Your task to perform on an android device: Add "logitech g910" to the cart on ebay.com, then select checkout. Image 0: 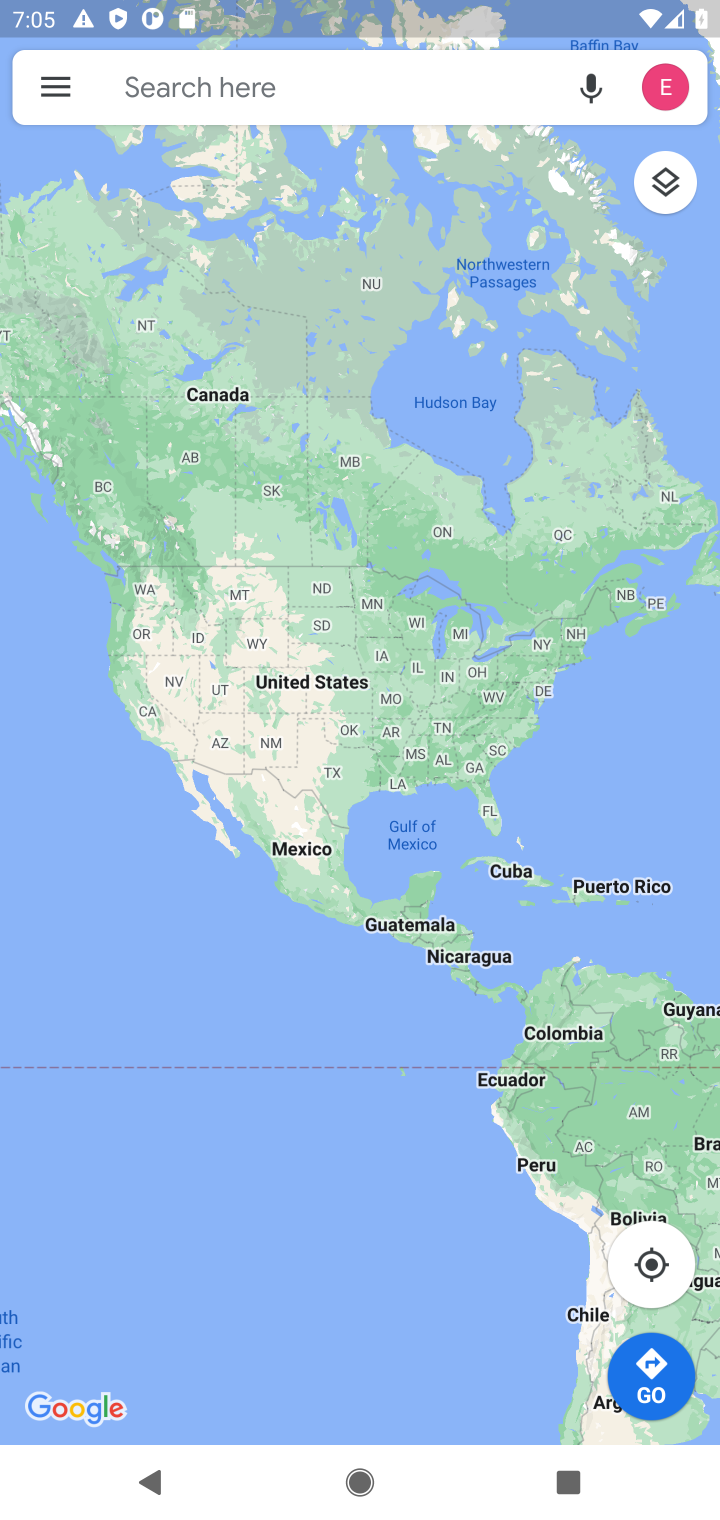
Step 0: press home button
Your task to perform on an android device: Add "logitech g910" to the cart on ebay.com, then select checkout. Image 1: 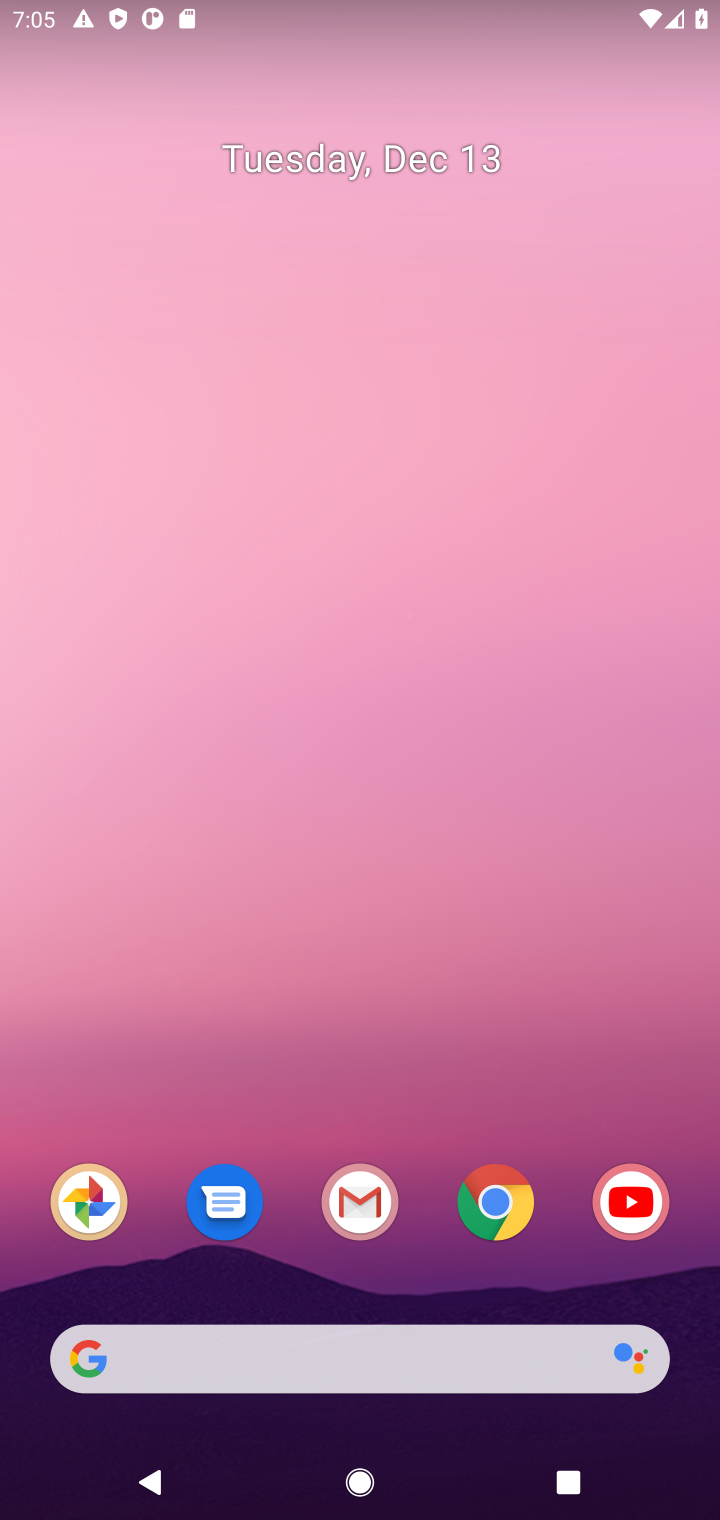
Step 1: click (493, 439)
Your task to perform on an android device: Add "logitech g910" to the cart on ebay.com, then select checkout. Image 2: 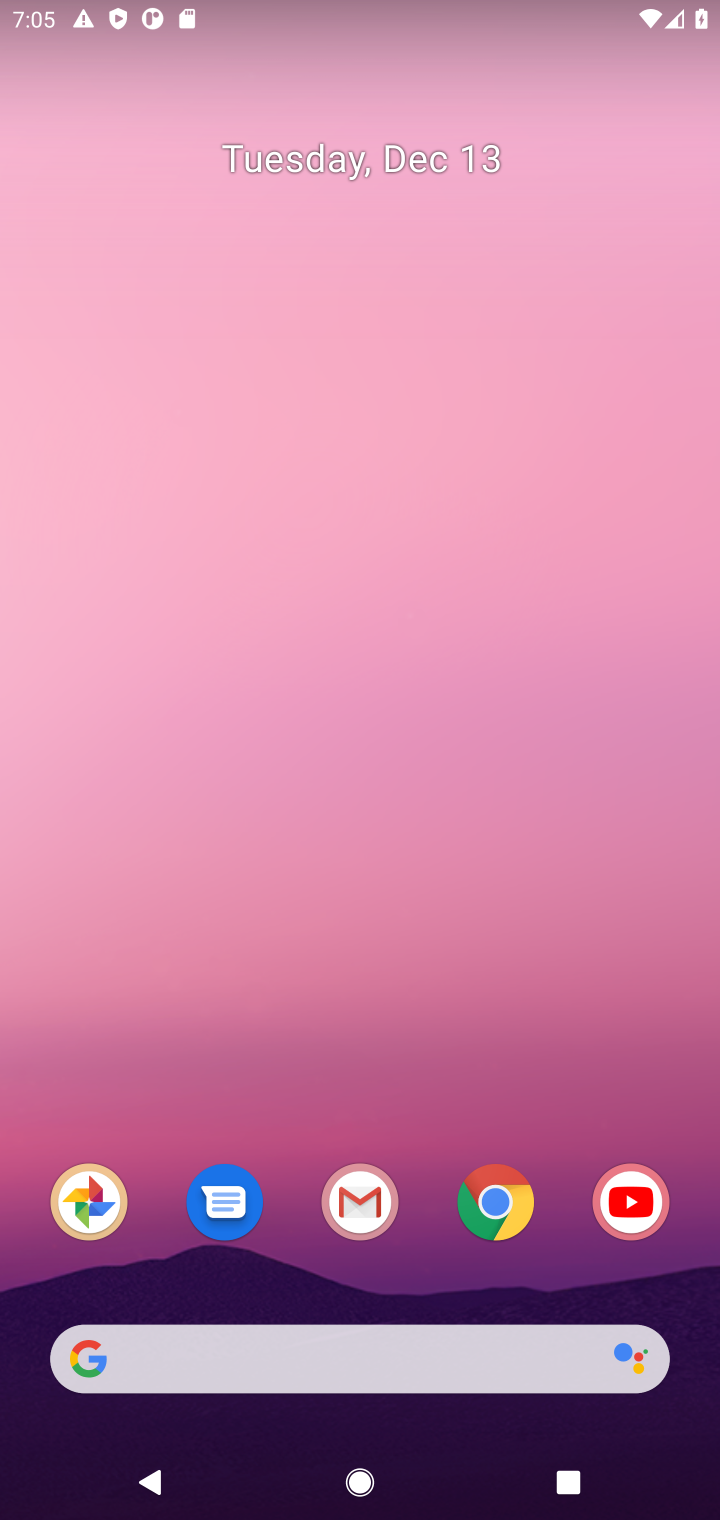
Step 2: click (503, 1221)
Your task to perform on an android device: Add "logitech g910" to the cart on ebay.com, then select checkout. Image 3: 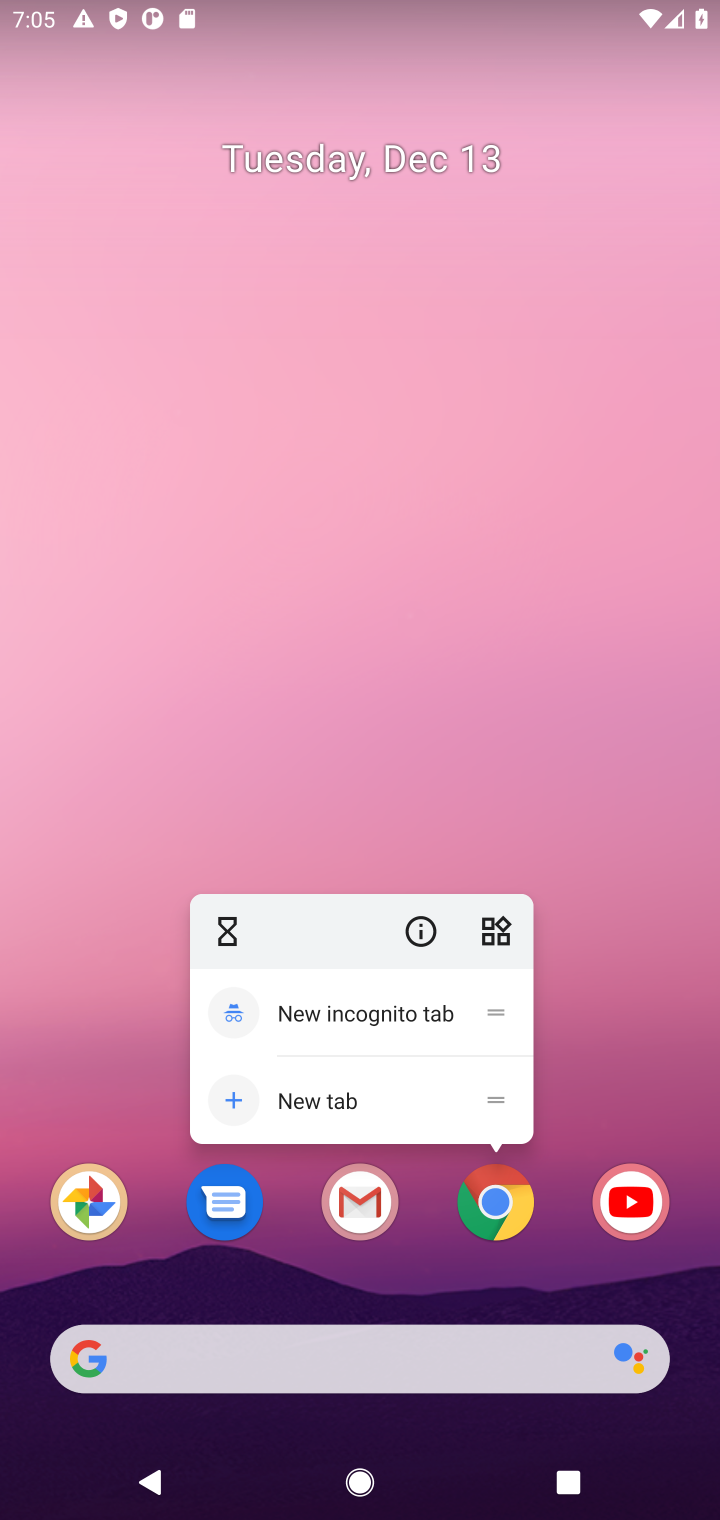
Step 3: click (503, 1221)
Your task to perform on an android device: Add "logitech g910" to the cart on ebay.com, then select checkout. Image 4: 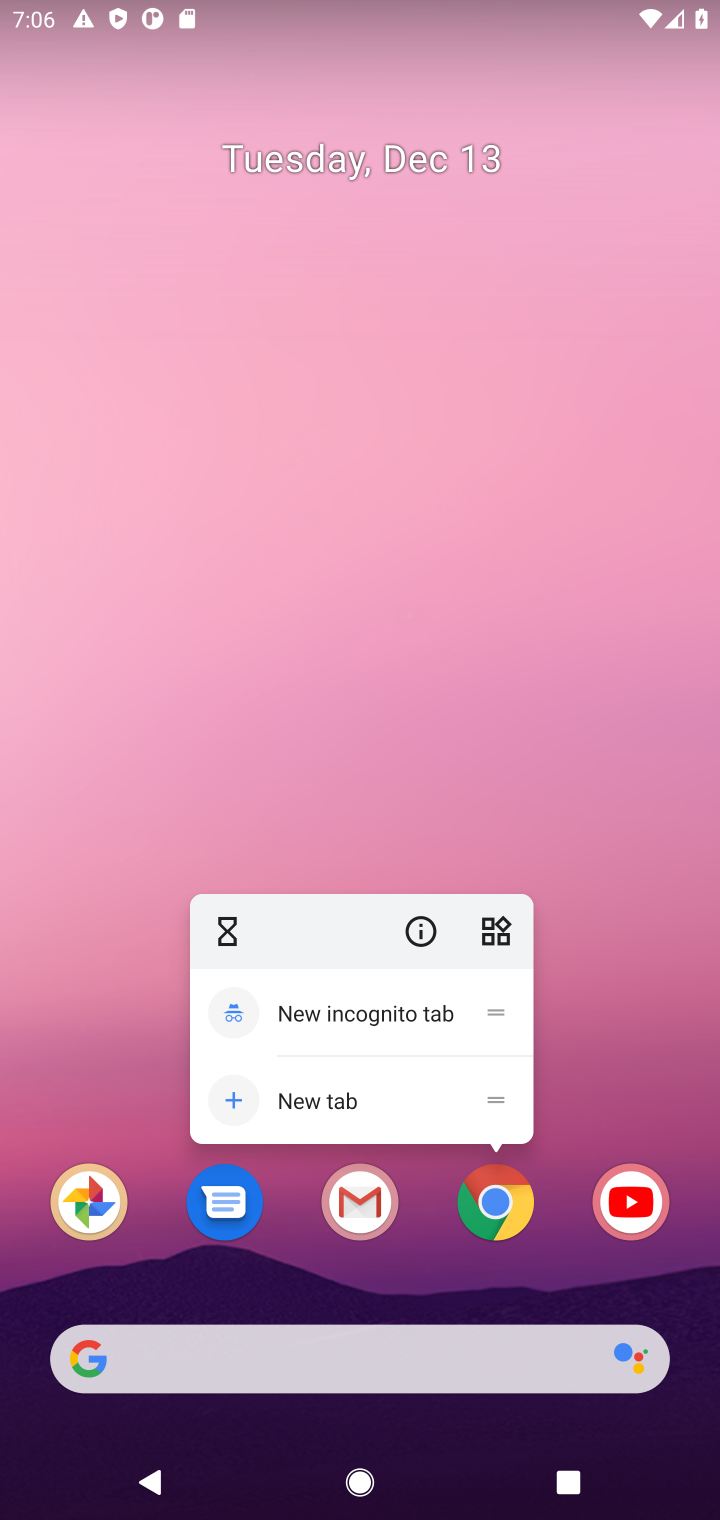
Step 4: click (493, 1212)
Your task to perform on an android device: Add "logitech g910" to the cart on ebay.com, then select checkout. Image 5: 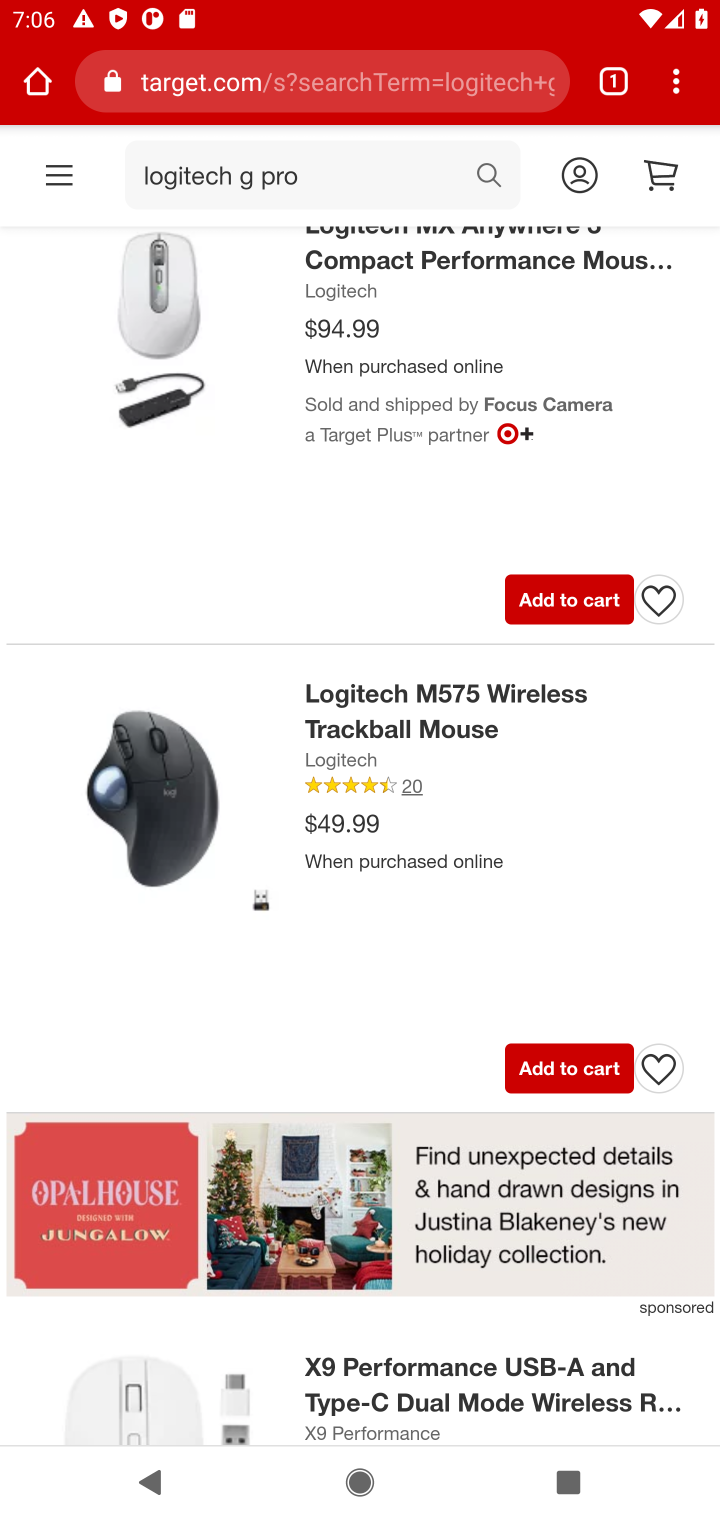
Step 5: click (281, 93)
Your task to perform on an android device: Add "logitech g910" to the cart on ebay.com, then select checkout. Image 6: 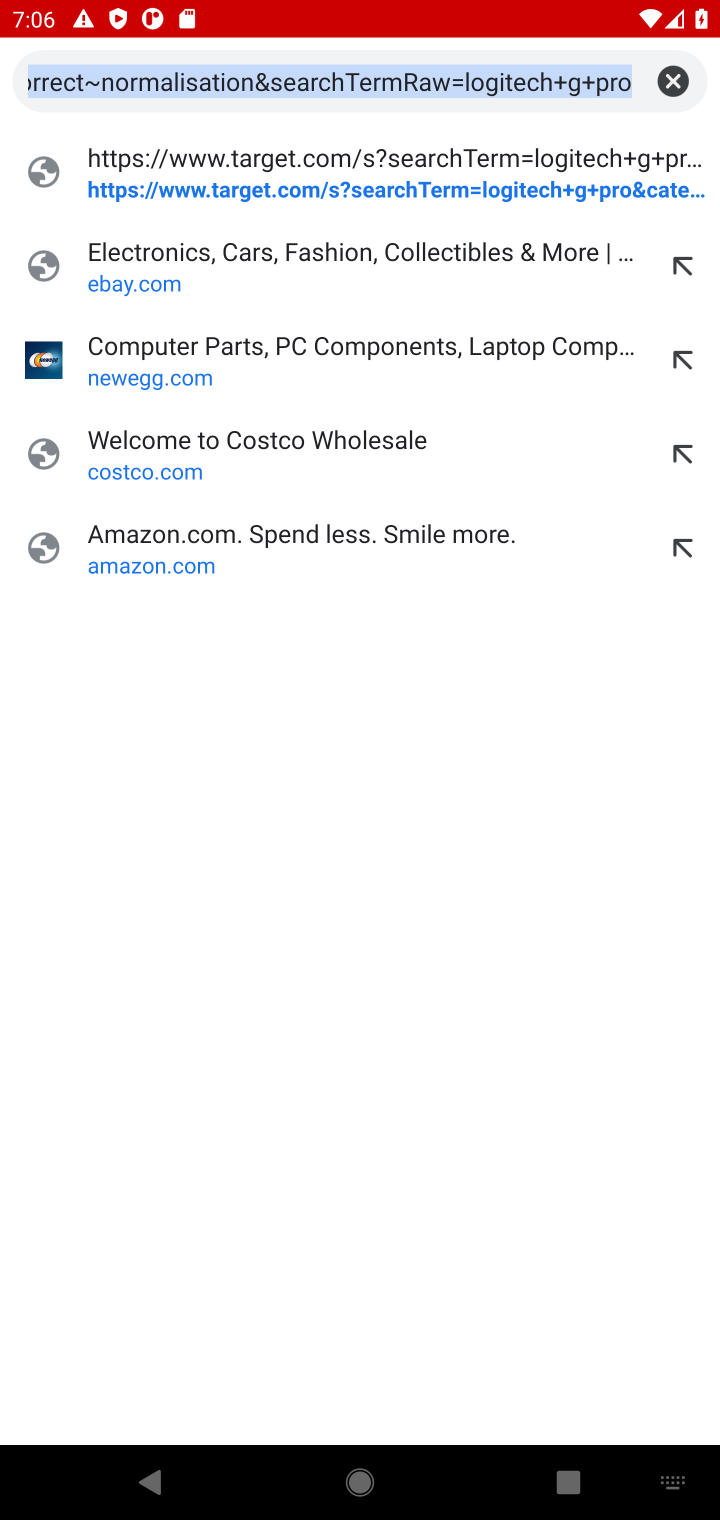
Step 6: click (166, 269)
Your task to perform on an android device: Add "logitech g910" to the cart on ebay.com, then select checkout. Image 7: 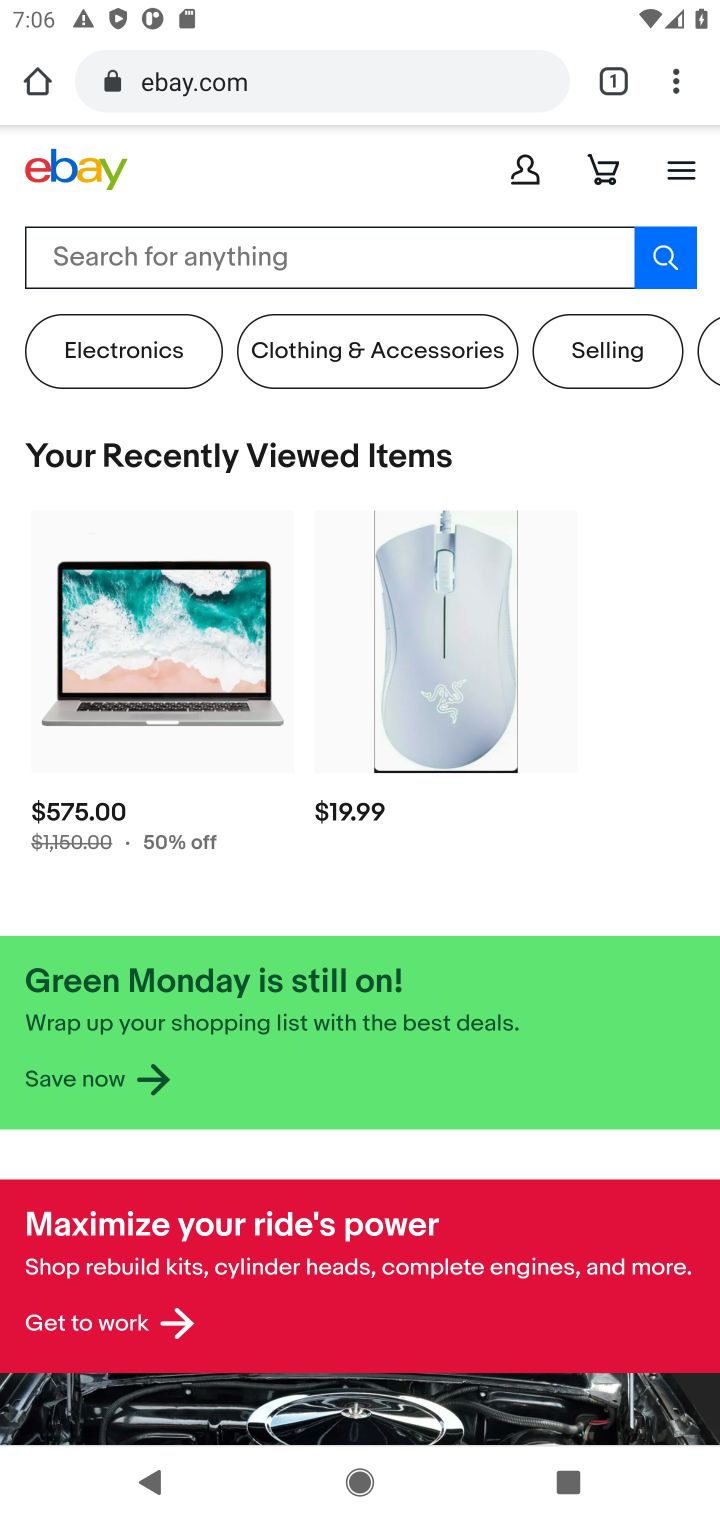
Step 7: click (112, 272)
Your task to perform on an android device: Add "logitech g910" to the cart on ebay.com, then select checkout. Image 8: 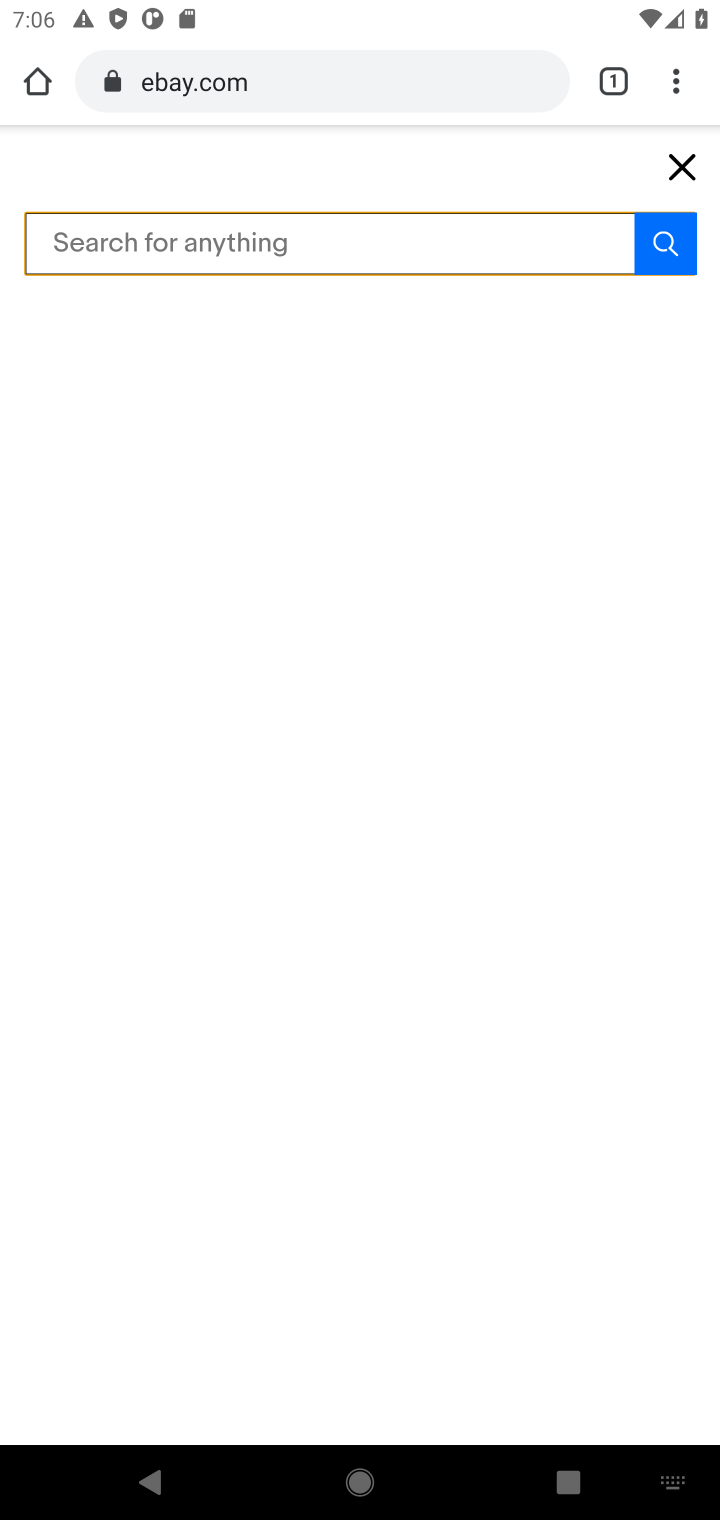
Step 8: type "logitech g910"
Your task to perform on an android device: Add "logitech g910" to the cart on ebay.com, then select checkout. Image 9: 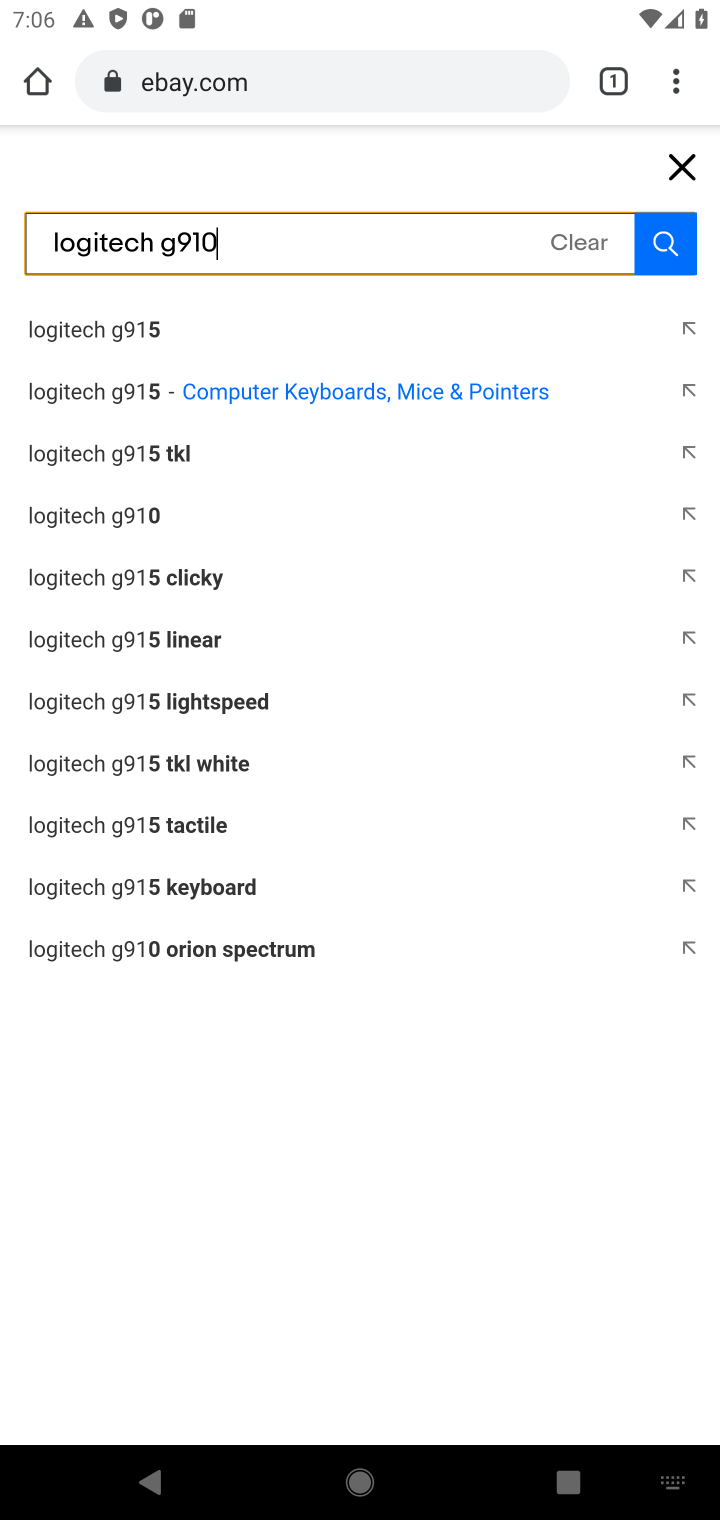
Step 9: click (110, 523)
Your task to perform on an android device: Add "logitech g910" to the cart on ebay.com, then select checkout. Image 10: 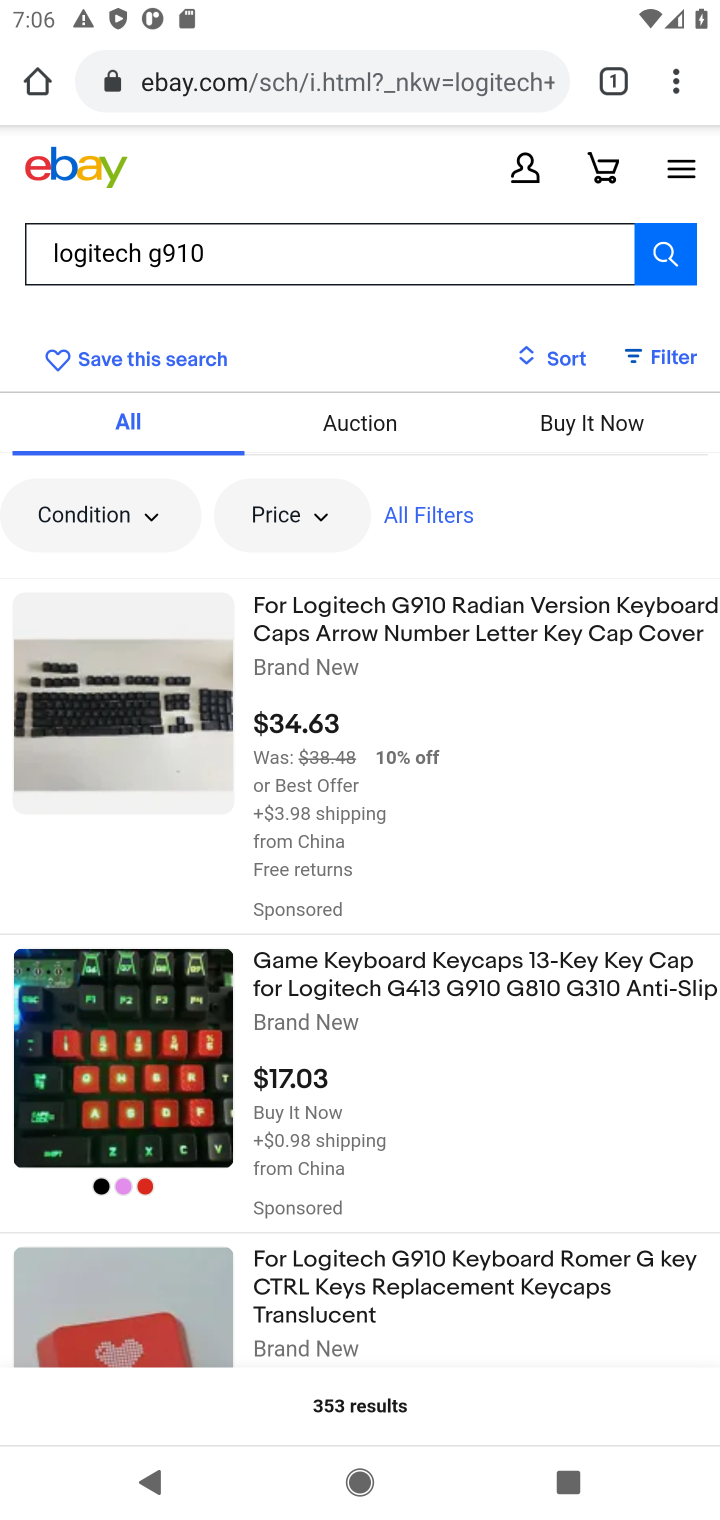
Step 10: click (466, 633)
Your task to perform on an android device: Add "logitech g910" to the cart on ebay.com, then select checkout. Image 11: 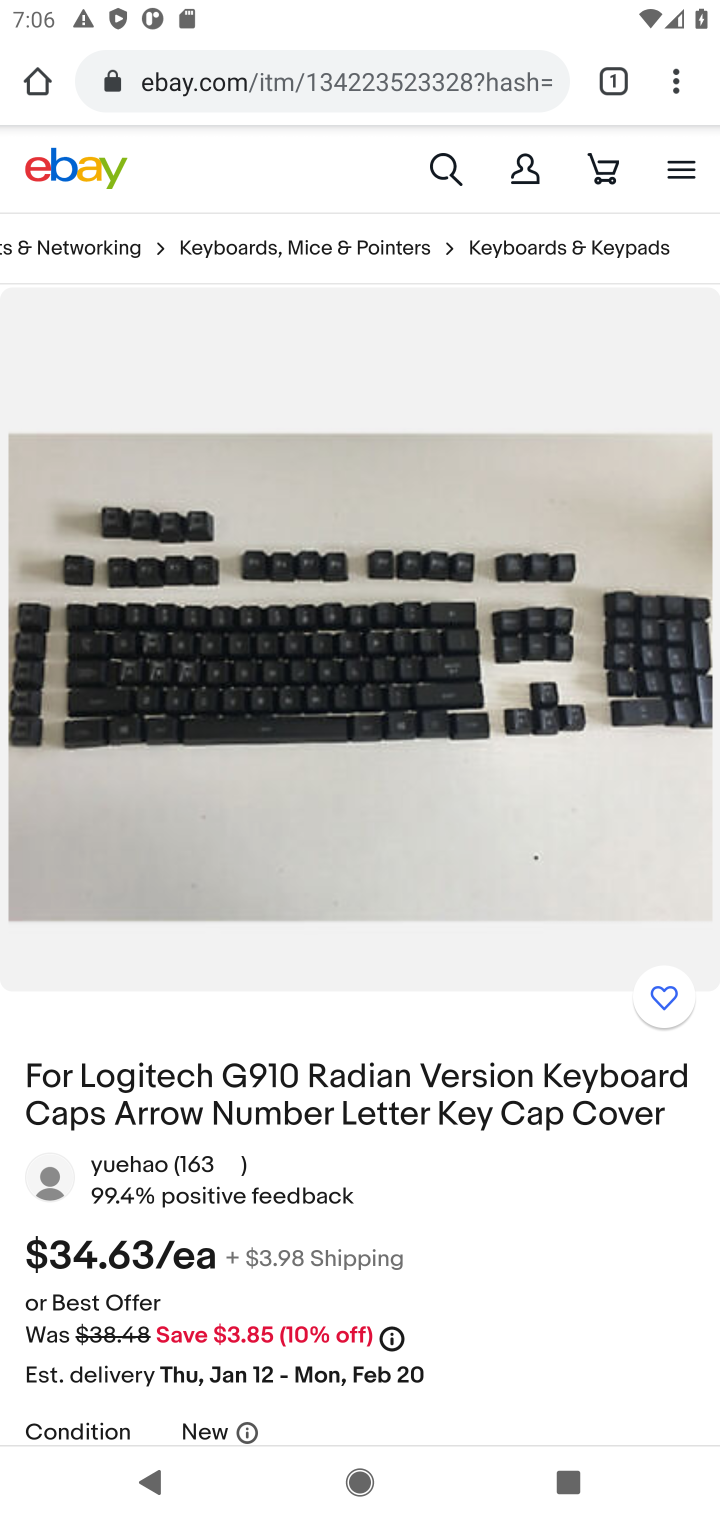
Step 11: drag from (360, 1081) to (406, 540)
Your task to perform on an android device: Add "logitech g910" to the cart on ebay.com, then select checkout. Image 12: 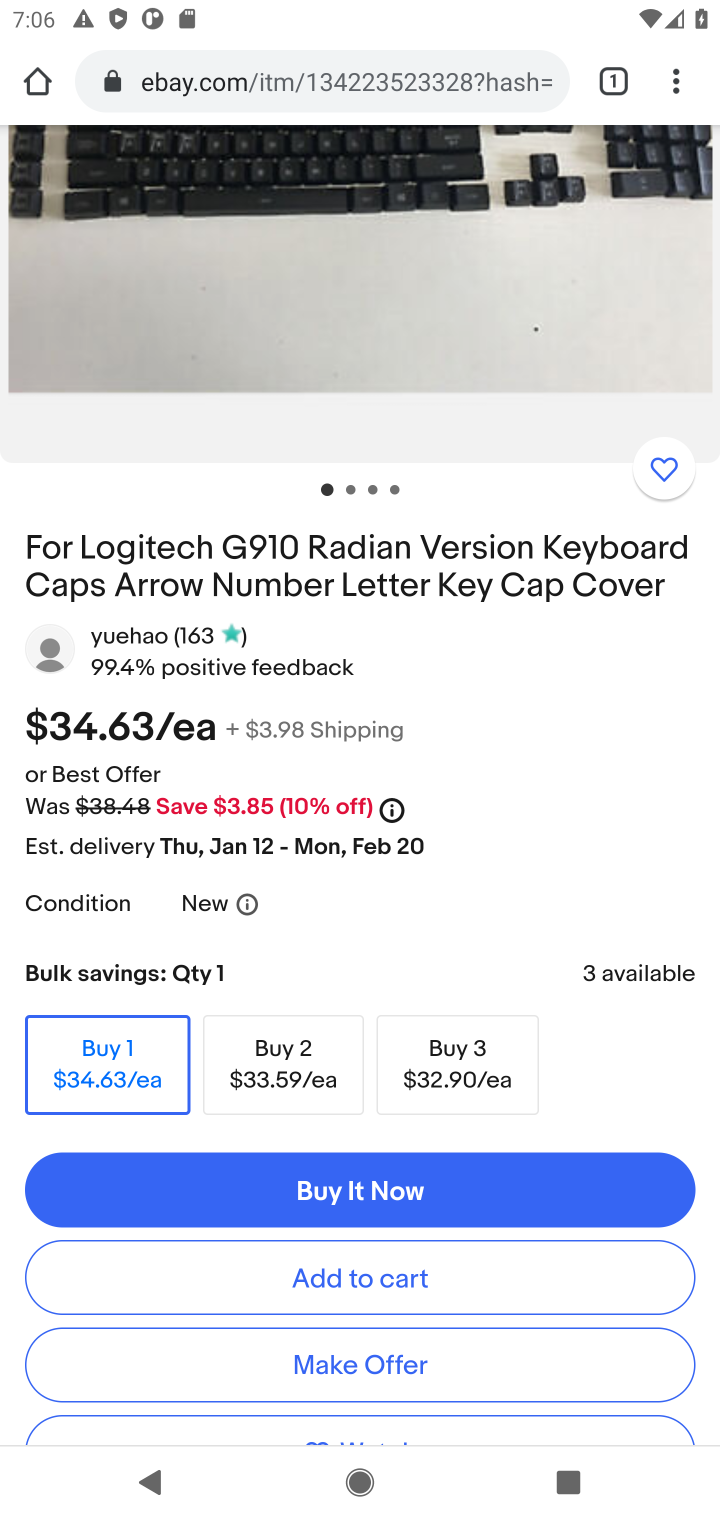
Step 12: click (307, 1271)
Your task to perform on an android device: Add "logitech g910" to the cart on ebay.com, then select checkout. Image 13: 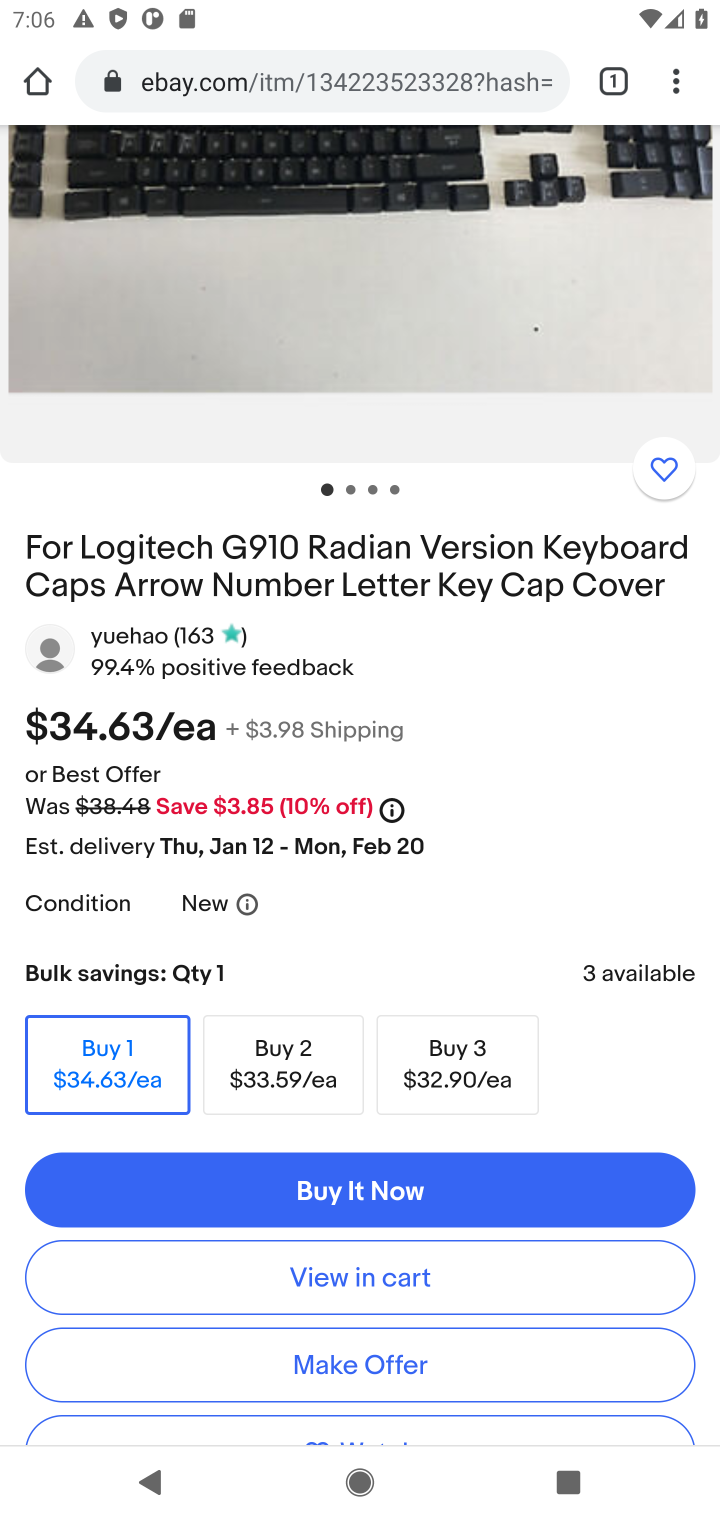
Step 13: click (307, 1271)
Your task to perform on an android device: Add "logitech g910" to the cart on ebay.com, then select checkout. Image 14: 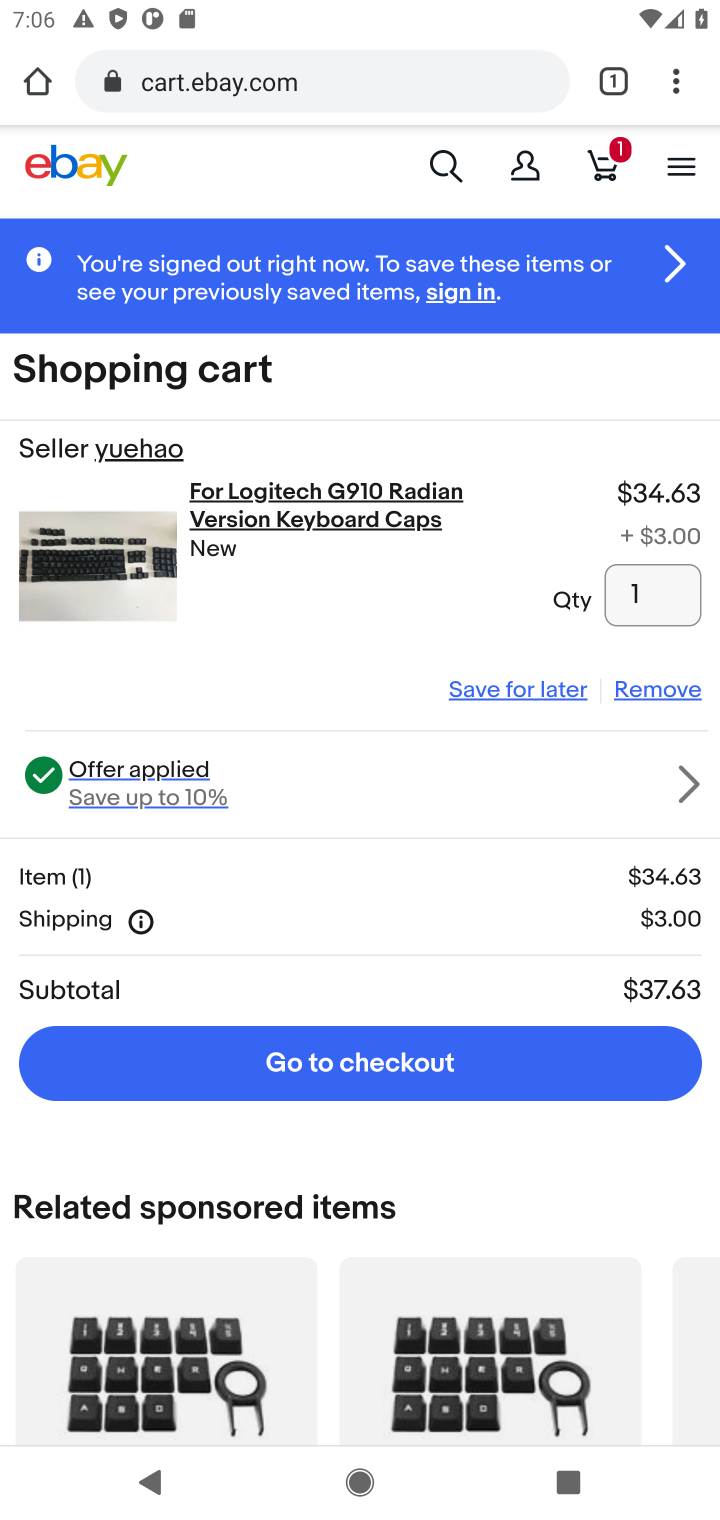
Step 14: click (325, 1075)
Your task to perform on an android device: Add "logitech g910" to the cart on ebay.com, then select checkout. Image 15: 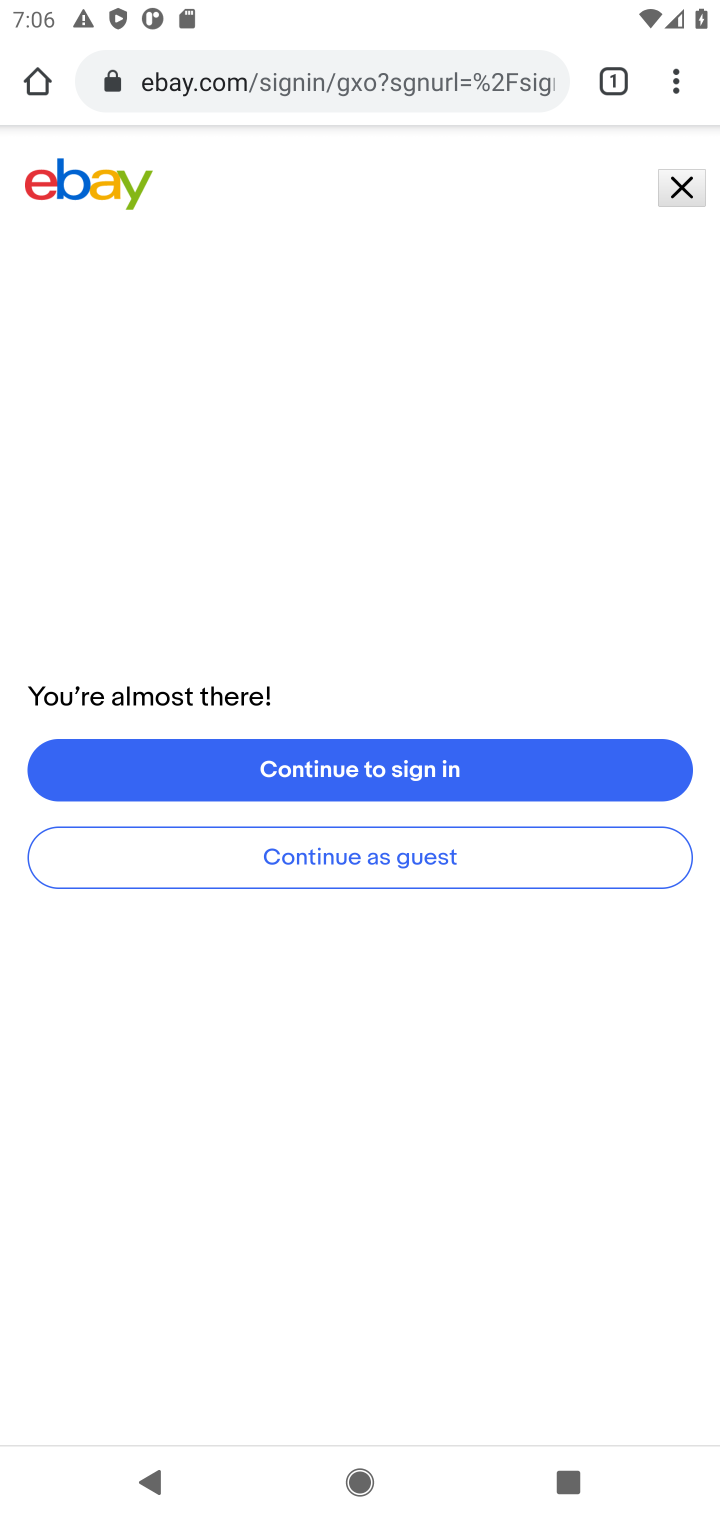
Step 15: task complete